Your task to perform on an android device: check data usage Image 0: 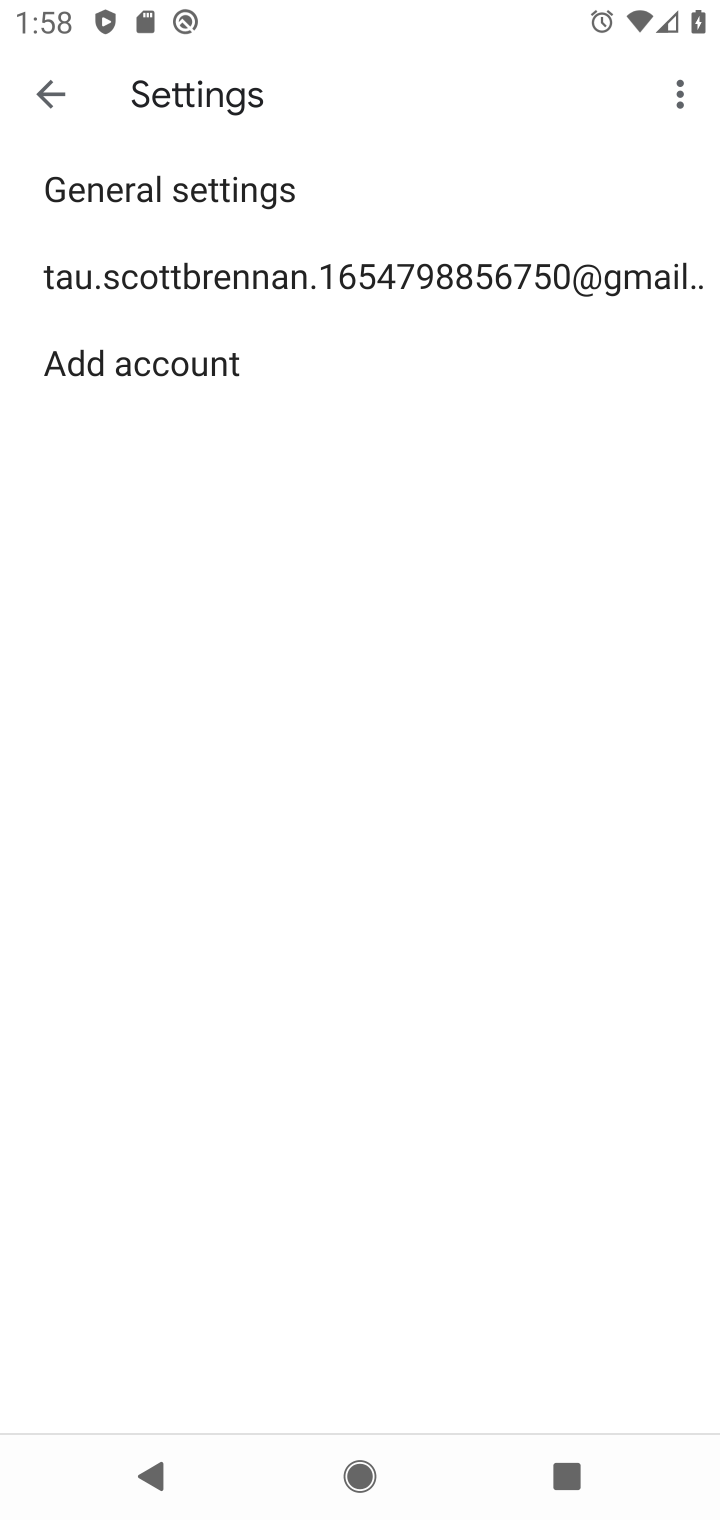
Step 0: press home button
Your task to perform on an android device: check data usage Image 1: 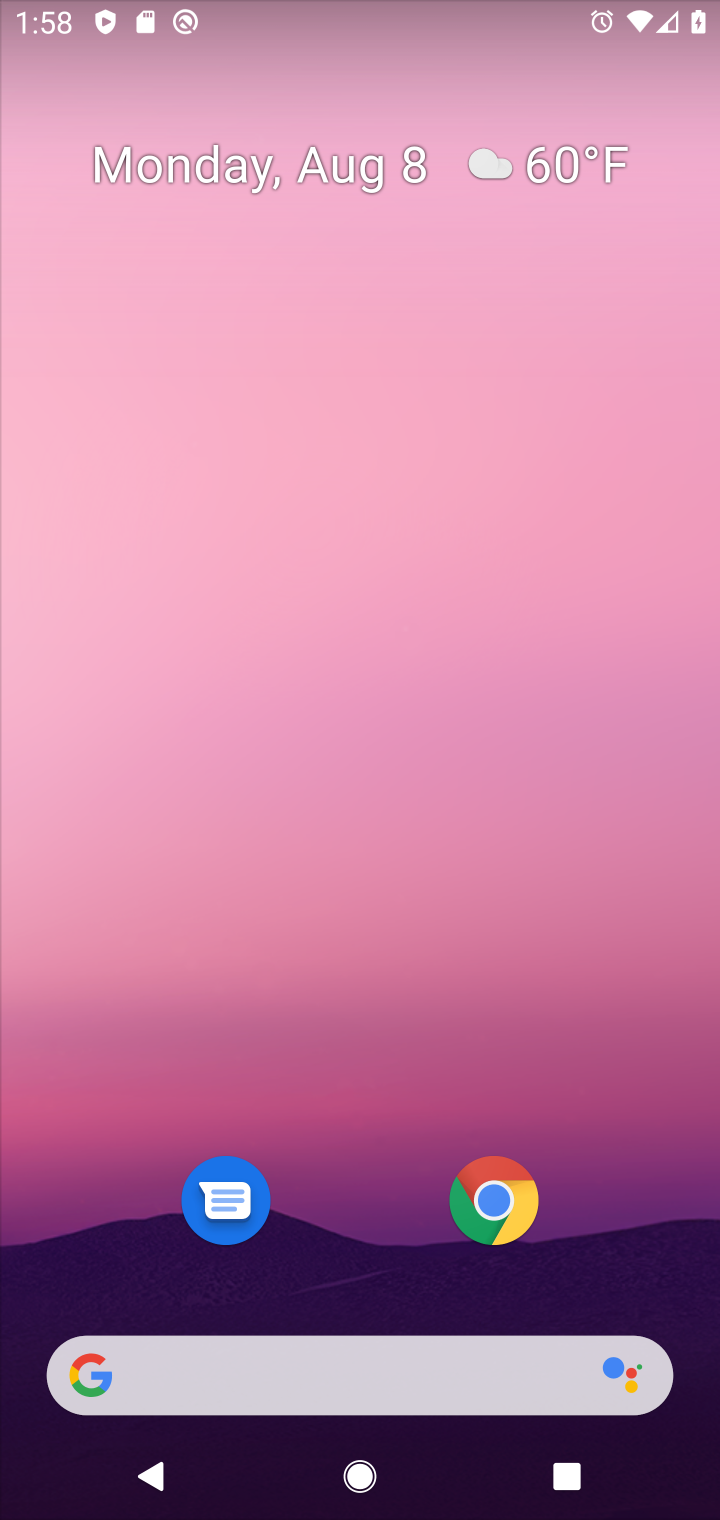
Step 1: drag from (370, 1246) to (409, 278)
Your task to perform on an android device: check data usage Image 2: 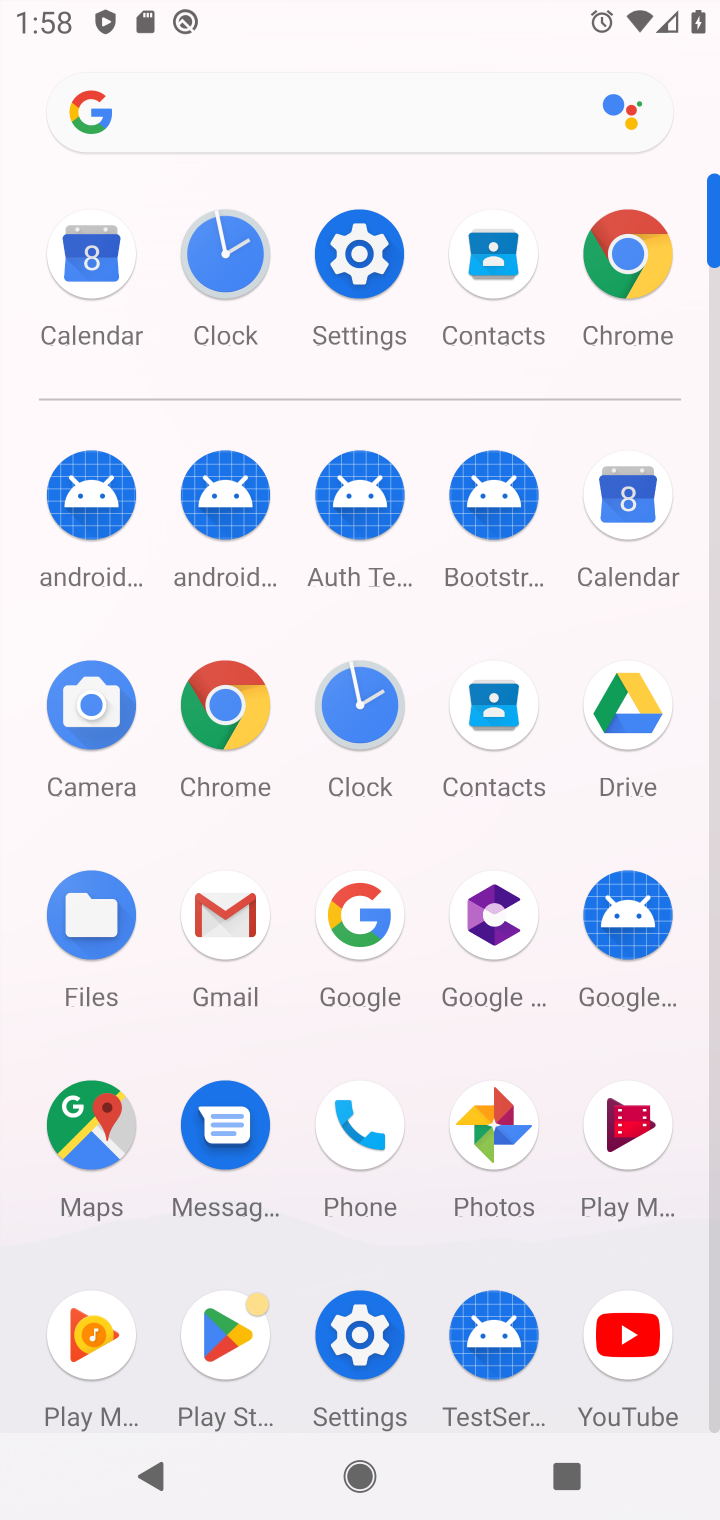
Step 2: click (349, 245)
Your task to perform on an android device: check data usage Image 3: 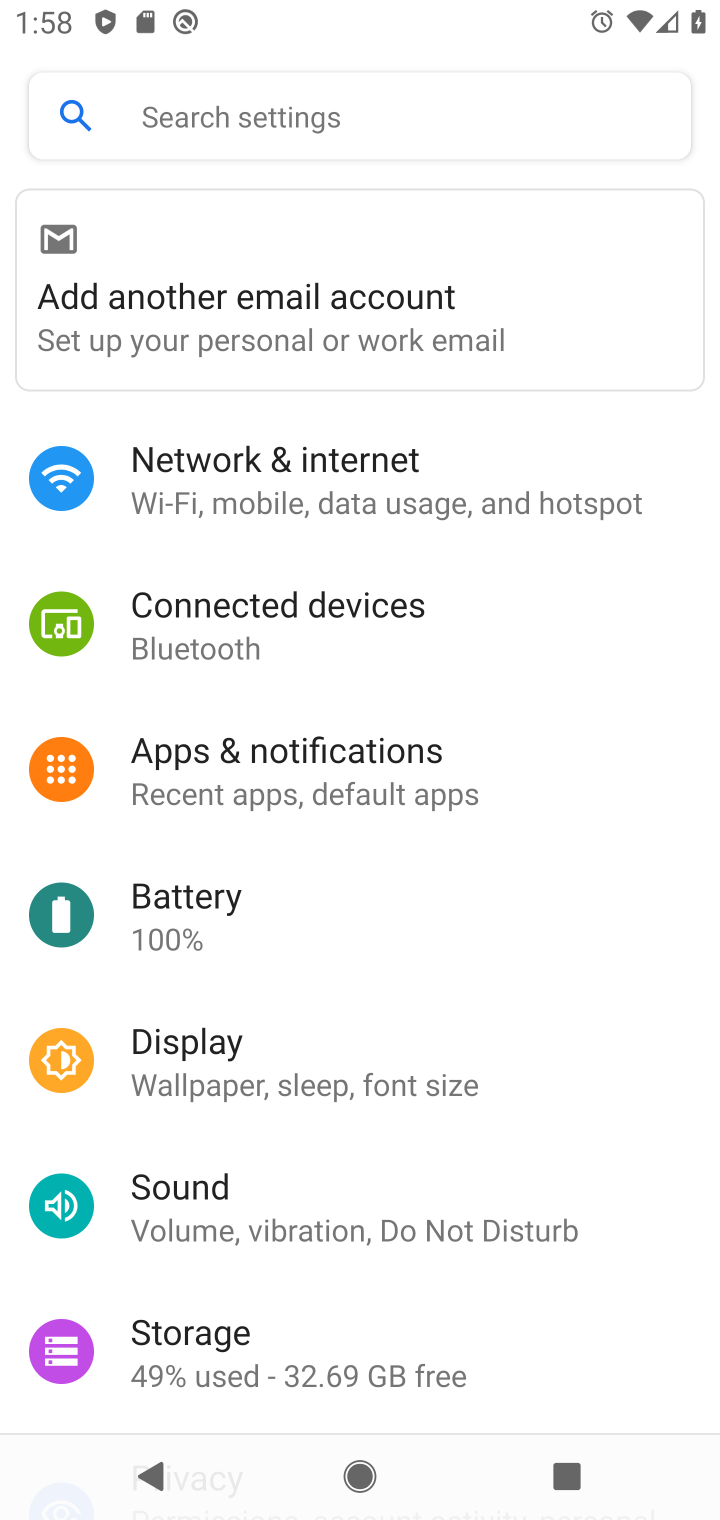
Step 3: click (363, 485)
Your task to perform on an android device: check data usage Image 4: 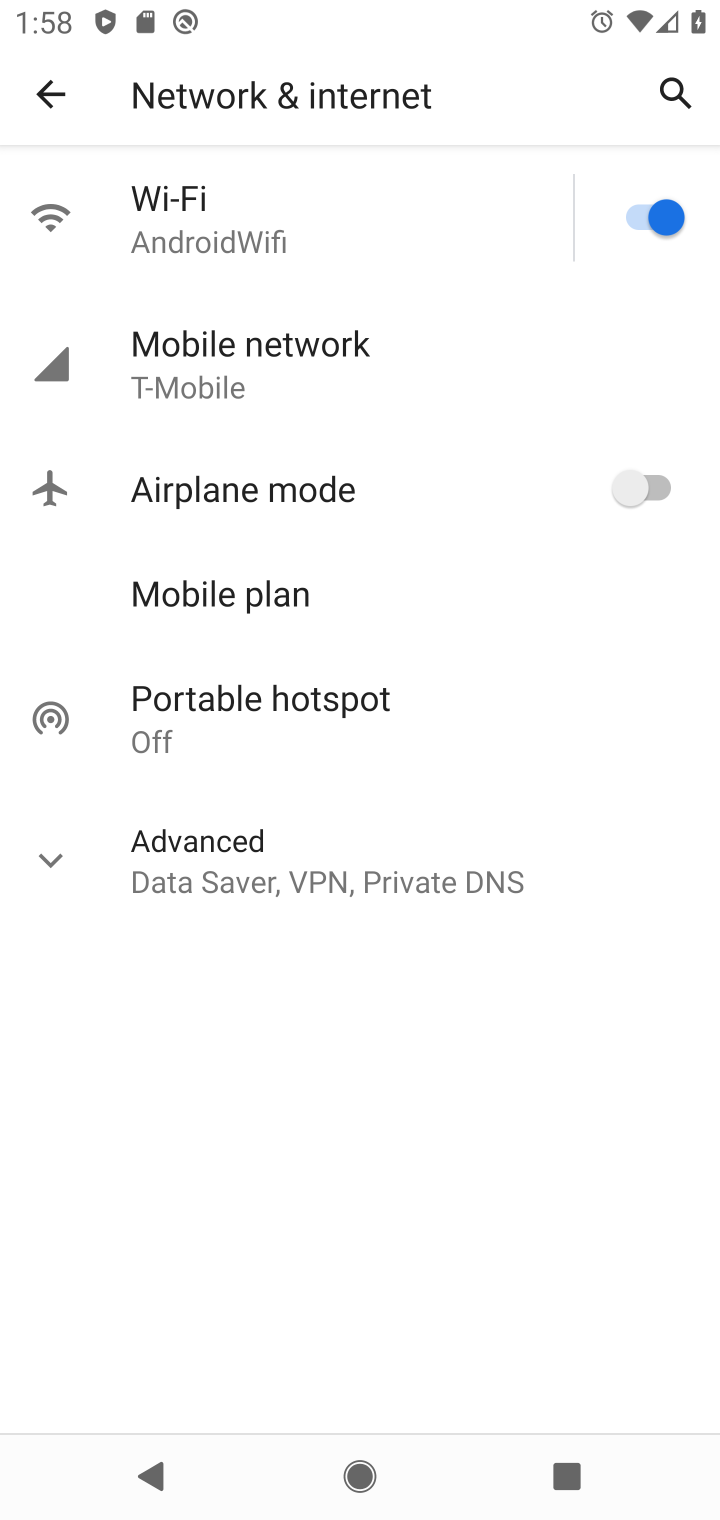
Step 4: click (249, 356)
Your task to perform on an android device: check data usage Image 5: 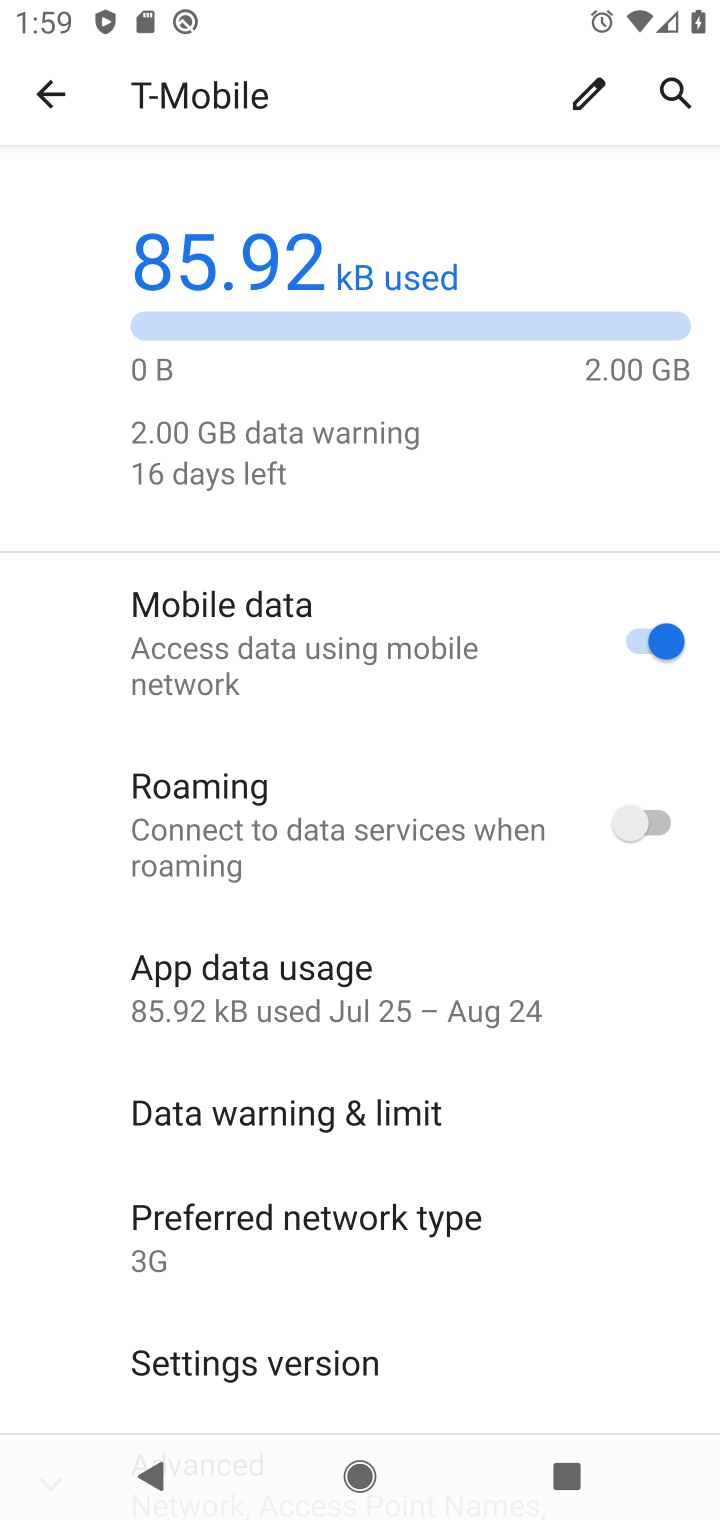
Step 5: click (294, 981)
Your task to perform on an android device: check data usage Image 6: 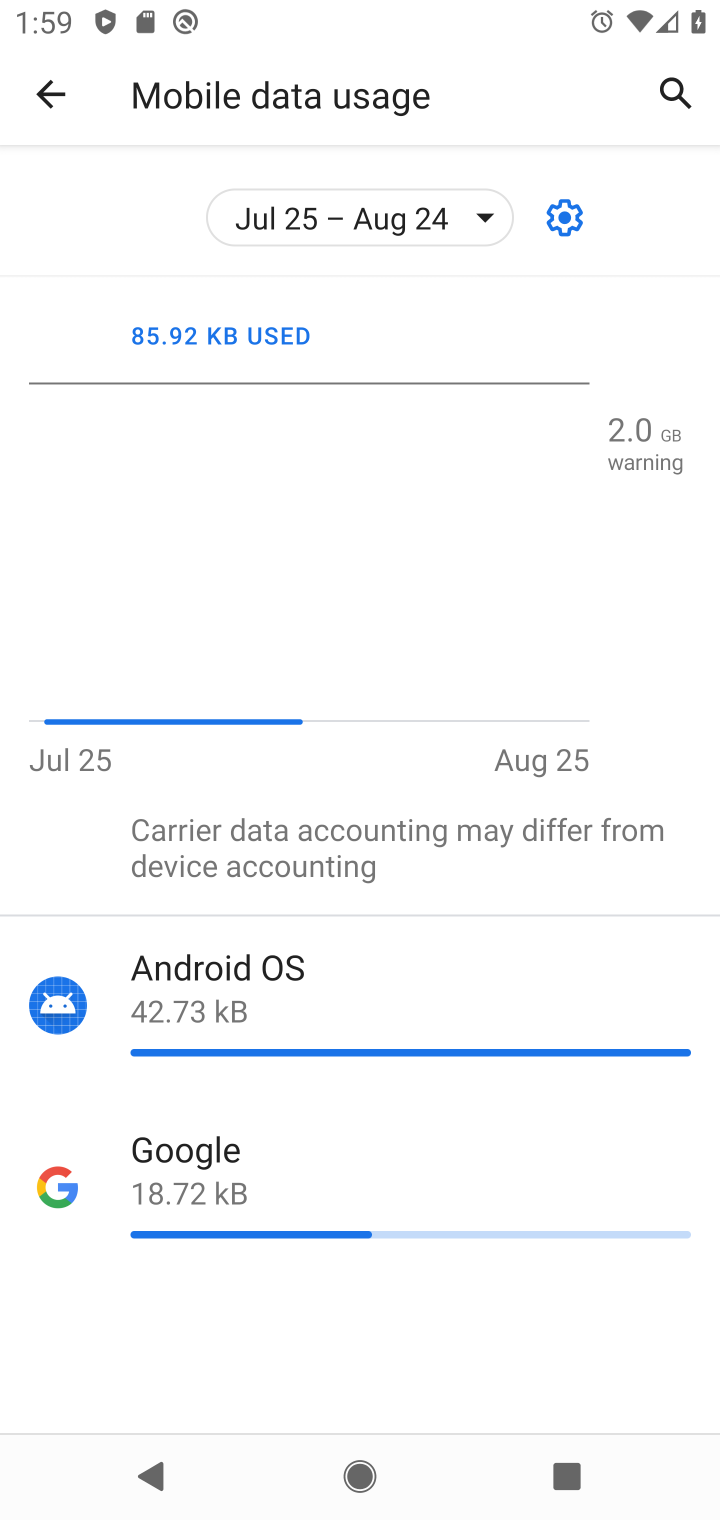
Step 6: task complete